Your task to perform on an android device: change timer sound Image 0: 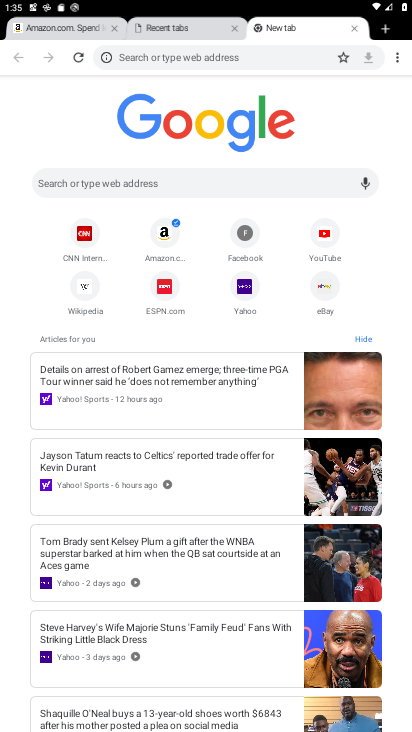
Step 0: press home button
Your task to perform on an android device: change timer sound Image 1: 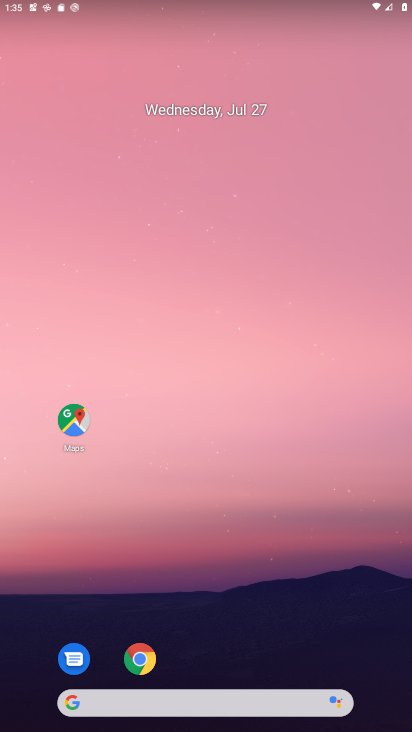
Step 1: drag from (47, 559) to (310, 94)
Your task to perform on an android device: change timer sound Image 2: 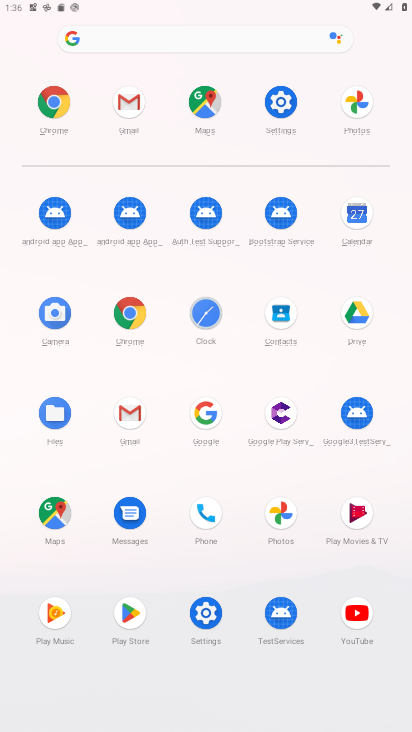
Step 2: click (213, 310)
Your task to perform on an android device: change timer sound Image 3: 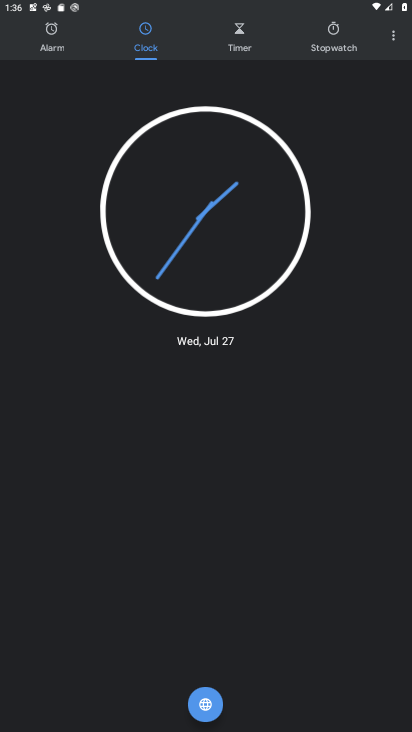
Step 3: click (392, 46)
Your task to perform on an android device: change timer sound Image 4: 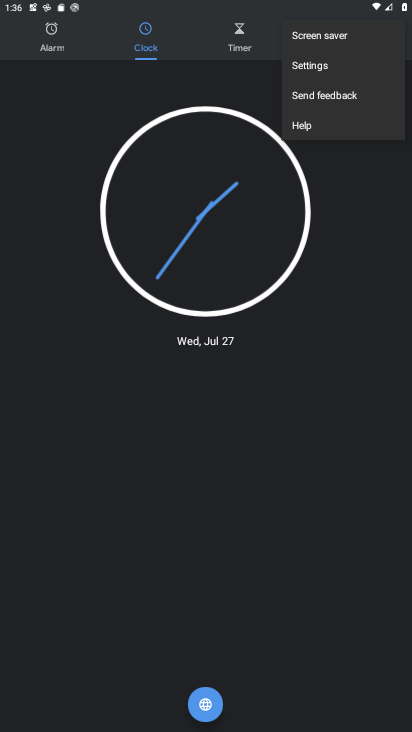
Step 4: click (316, 61)
Your task to perform on an android device: change timer sound Image 5: 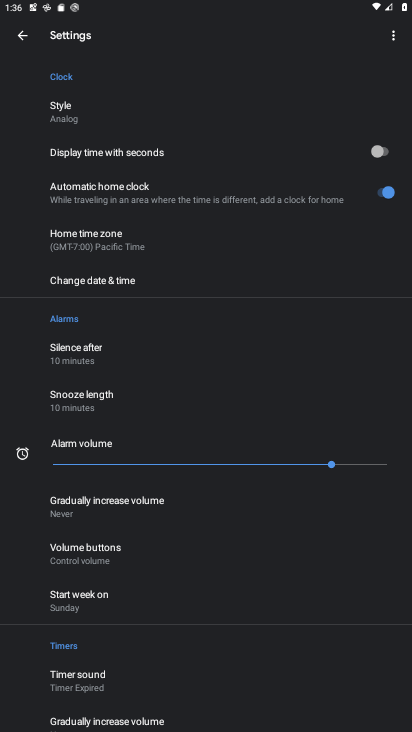
Step 5: drag from (118, 100) to (126, 584)
Your task to perform on an android device: change timer sound Image 6: 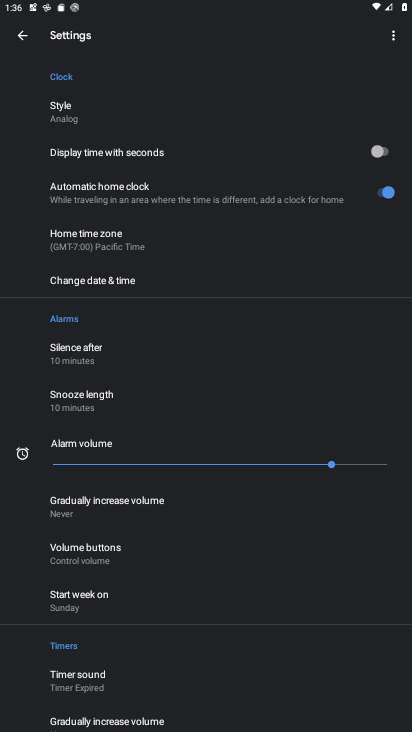
Step 6: click (117, 674)
Your task to perform on an android device: change timer sound Image 7: 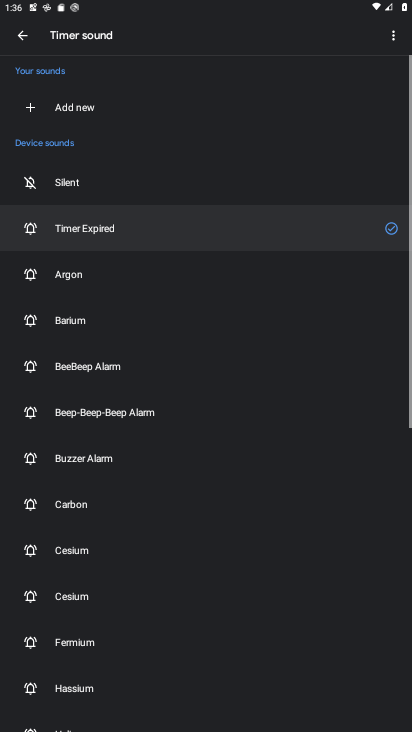
Step 7: click (91, 288)
Your task to perform on an android device: change timer sound Image 8: 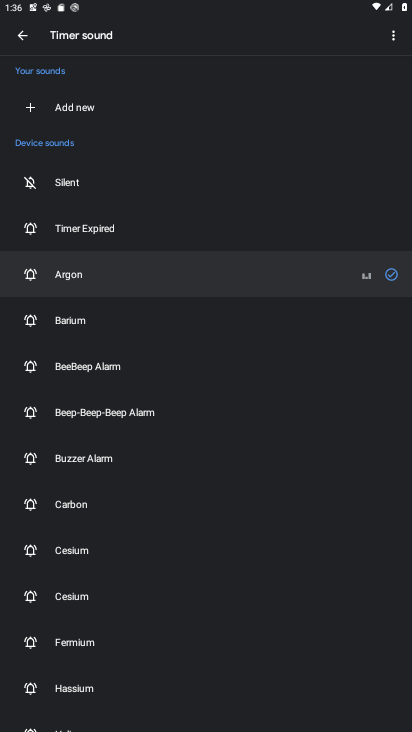
Step 8: task complete